Your task to perform on an android device: see creations saved in the google photos Image 0: 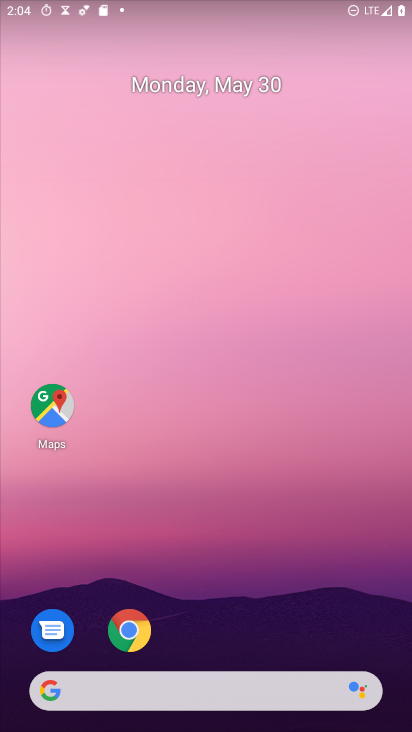
Step 0: drag from (210, 699) to (205, 170)
Your task to perform on an android device: see creations saved in the google photos Image 1: 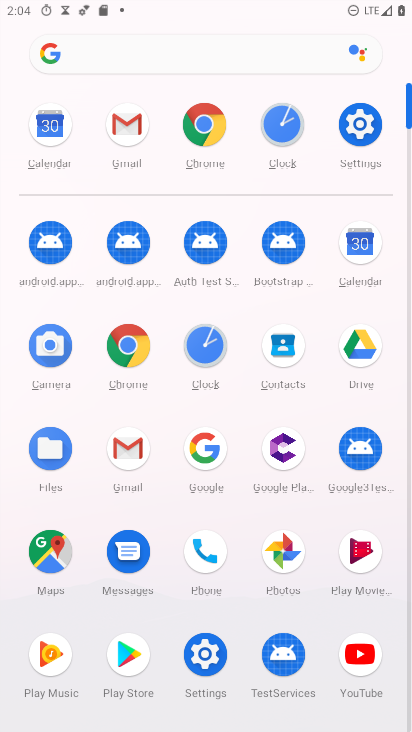
Step 1: click (291, 553)
Your task to perform on an android device: see creations saved in the google photos Image 2: 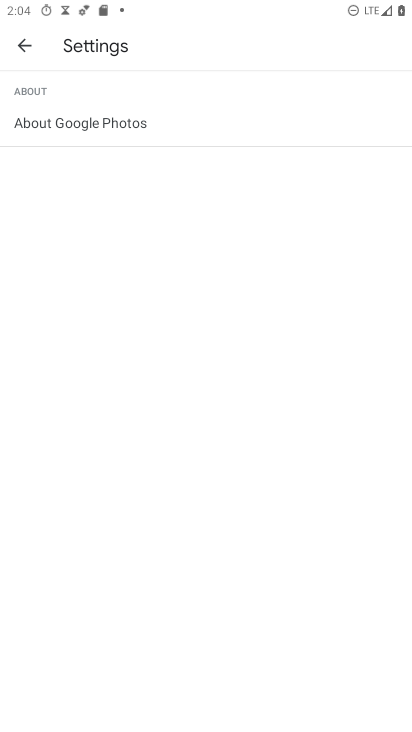
Step 2: click (23, 47)
Your task to perform on an android device: see creations saved in the google photos Image 3: 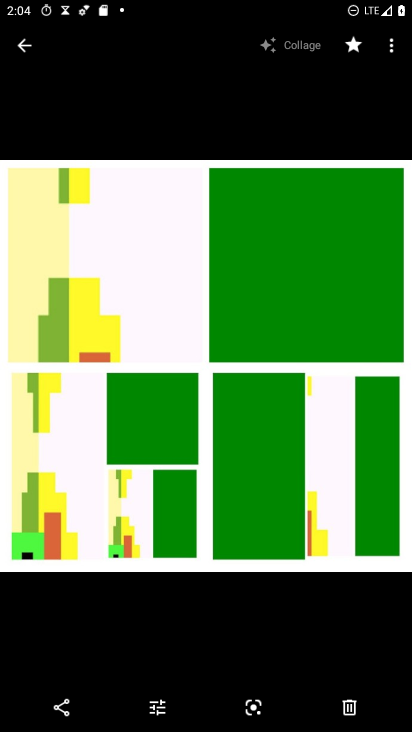
Step 3: click (19, 50)
Your task to perform on an android device: see creations saved in the google photos Image 4: 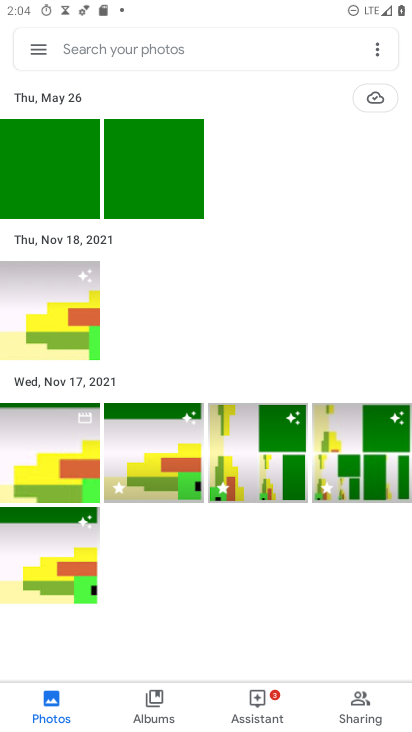
Step 4: click (51, 465)
Your task to perform on an android device: see creations saved in the google photos Image 5: 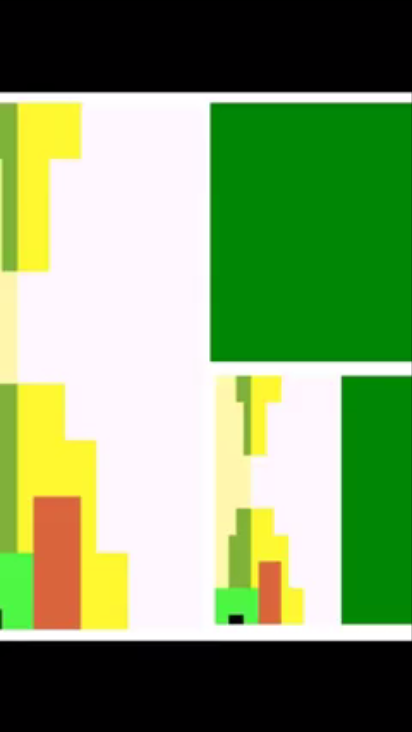
Step 5: click (359, 89)
Your task to perform on an android device: see creations saved in the google photos Image 6: 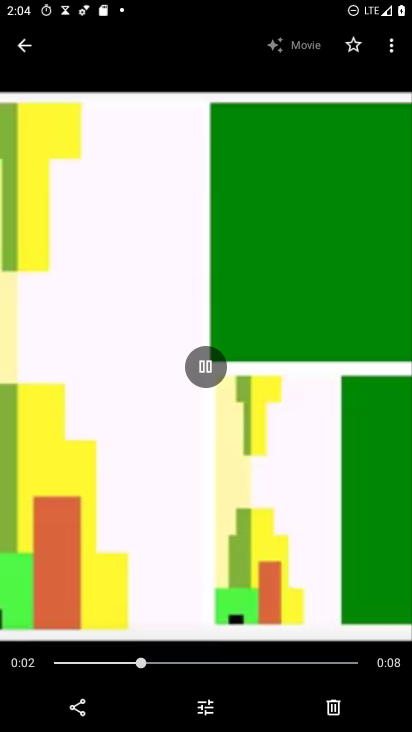
Step 6: click (390, 47)
Your task to perform on an android device: see creations saved in the google photos Image 7: 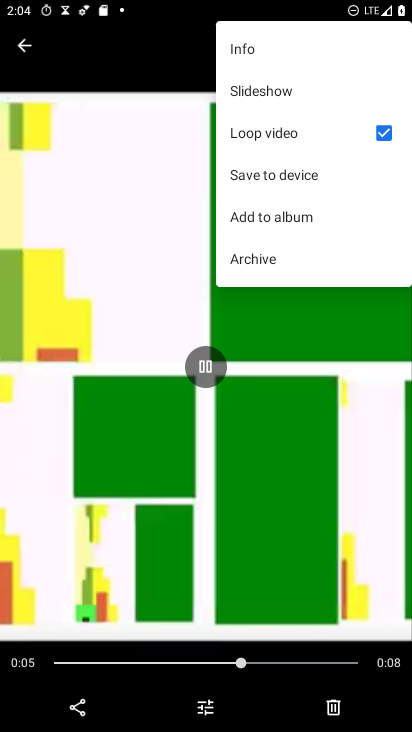
Step 7: click (277, 176)
Your task to perform on an android device: see creations saved in the google photos Image 8: 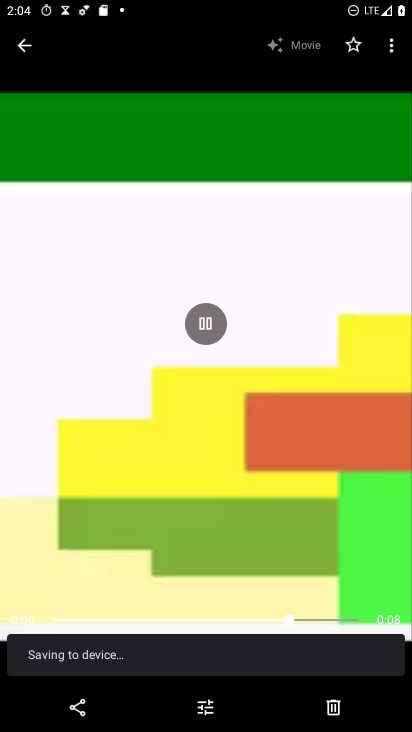
Step 8: task complete